Your task to perform on an android device: turn on javascript in the chrome app Image 0: 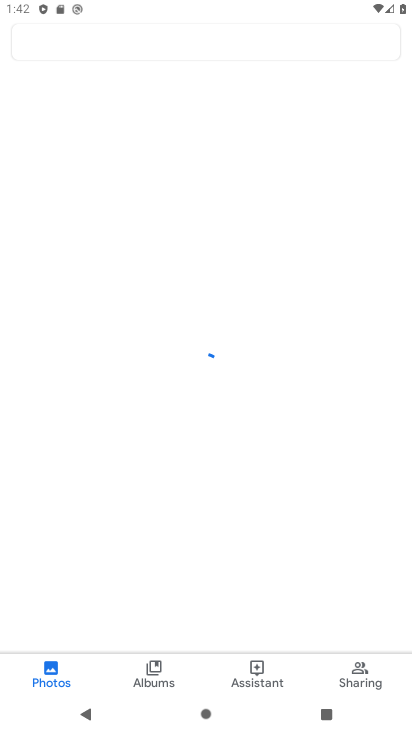
Step 0: press home button
Your task to perform on an android device: turn on javascript in the chrome app Image 1: 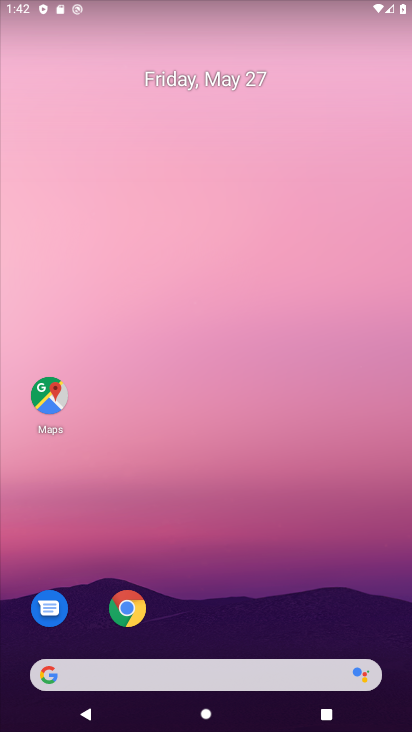
Step 1: click (118, 608)
Your task to perform on an android device: turn on javascript in the chrome app Image 2: 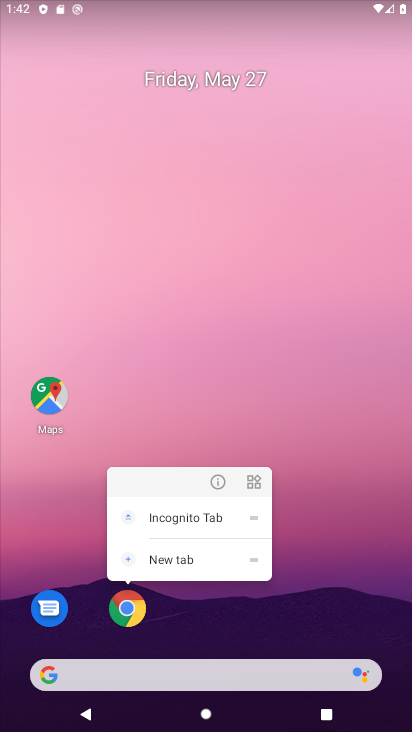
Step 2: click (117, 608)
Your task to perform on an android device: turn on javascript in the chrome app Image 3: 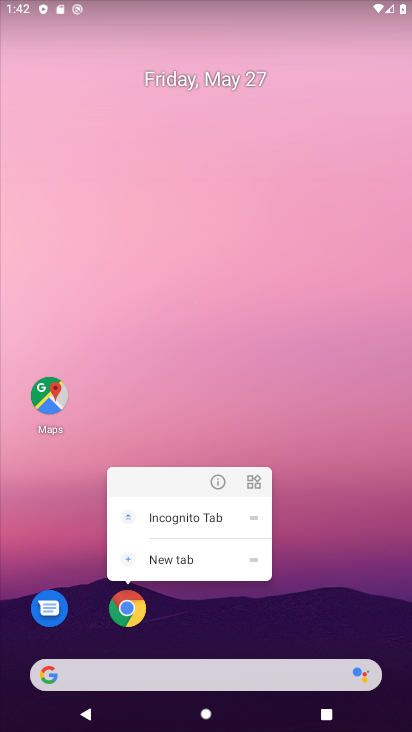
Step 3: click (134, 609)
Your task to perform on an android device: turn on javascript in the chrome app Image 4: 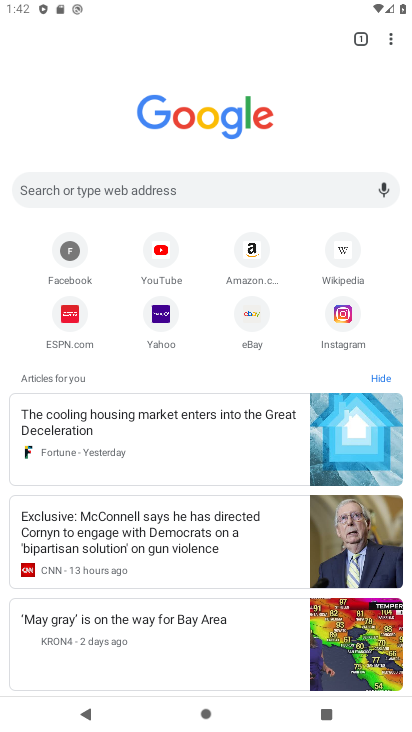
Step 4: click (387, 33)
Your task to perform on an android device: turn on javascript in the chrome app Image 5: 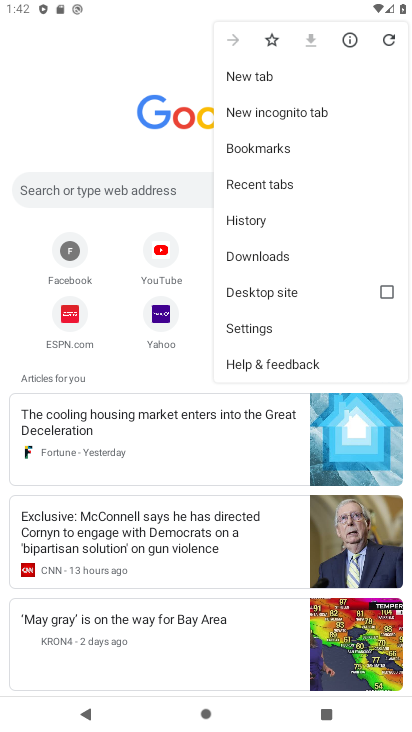
Step 5: click (255, 328)
Your task to perform on an android device: turn on javascript in the chrome app Image 6: 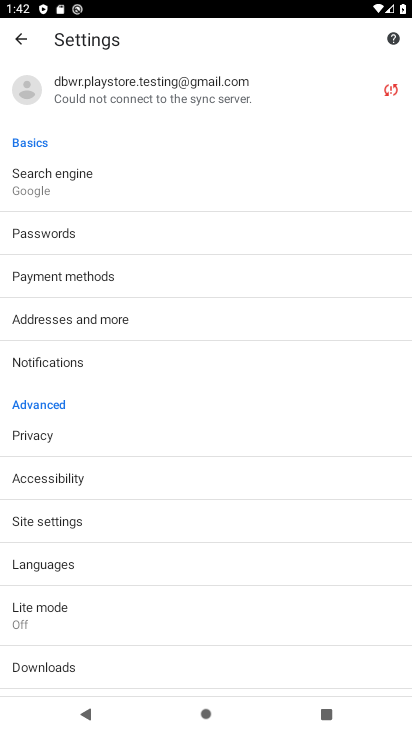
Step 6: click (52, 519)
Your task to perform on an android device: turn on javascript in the chrome app Image 7: 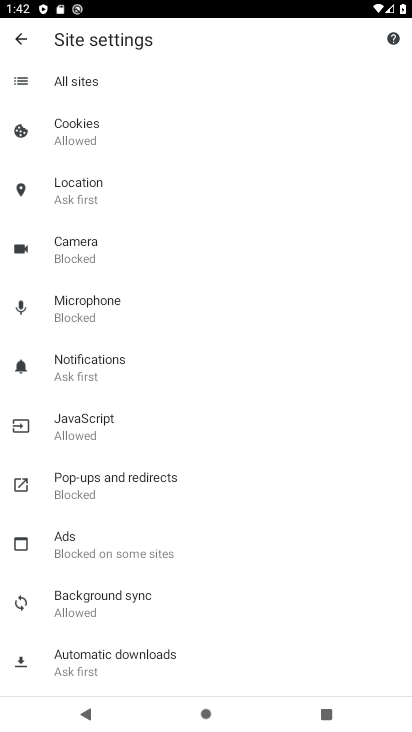
Step 7: click (133, 420)
Your task to perform on an android device: turn on javascript in the chrome app Image 8: 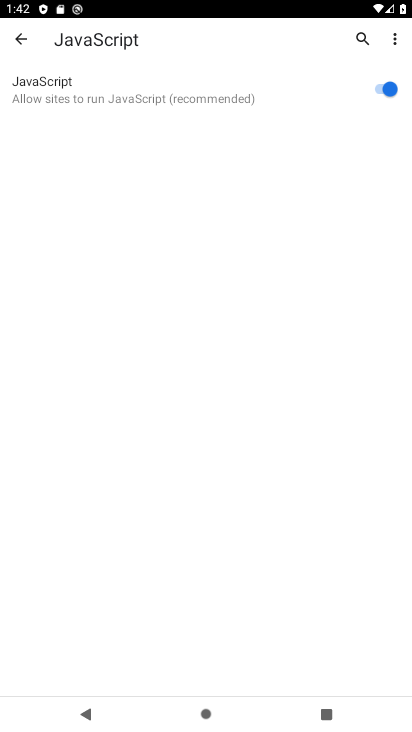
Step 8: task complete